Your task to perform on an android device: Open wifi settings Image 0: 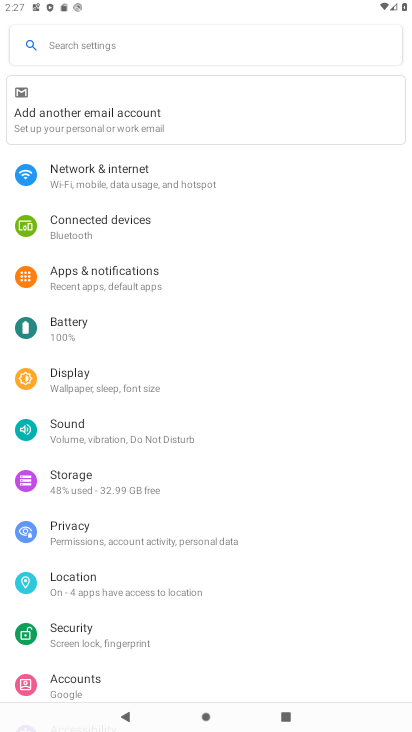
Step 0: click (129, 184)
Your task to perform on an android device: Open wifi settings Image 1: 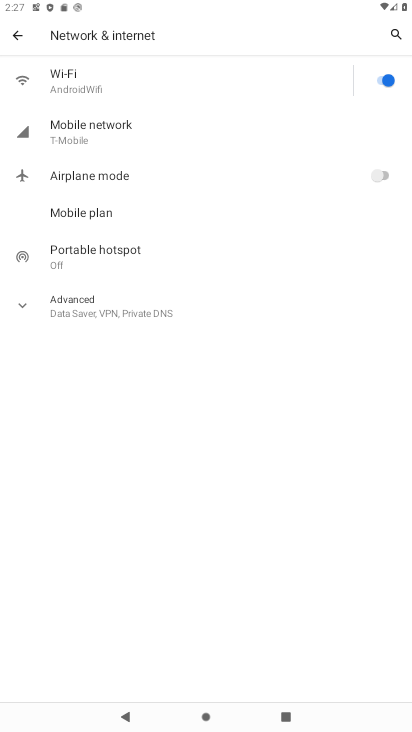
Step 1: click (77, 72)
Your task to perform on an android device: Open wifi settings Image 2: 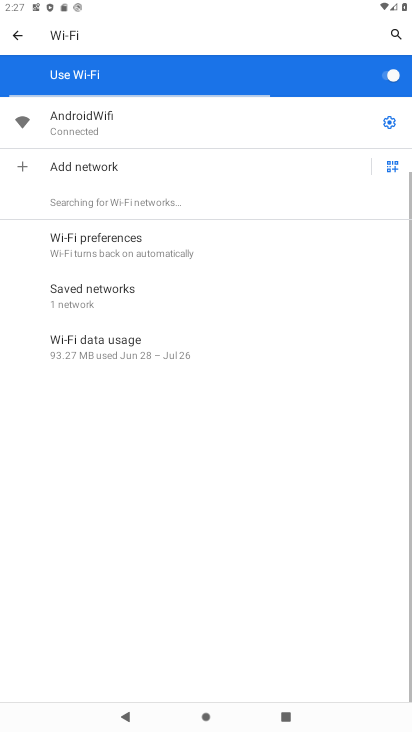
Step 2: task complete